Your task to perform on an android device: turn pop-ups on in chrome Image 0: 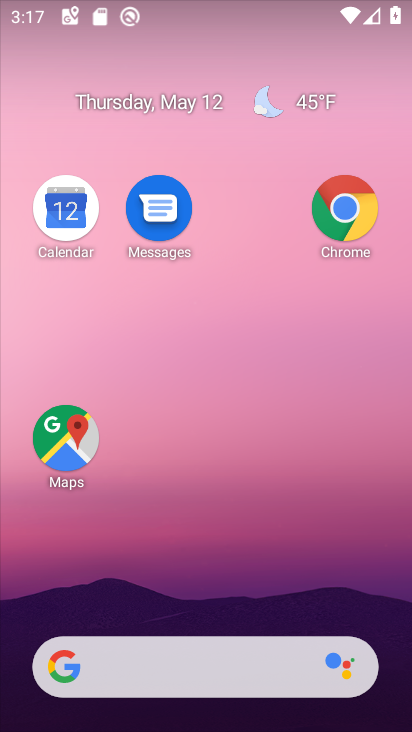
Step 0: drag from (130, 568) to (219, 236)
Your task to perform on an android device: turn pop-ups on in chrome Image 1: 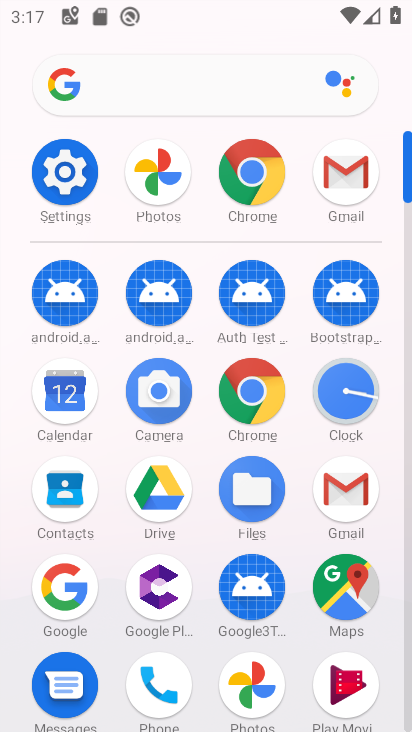
Step 1: click (261, 153)
Your task to perform on an android device: turn pop-ups on in chrome Image 2: 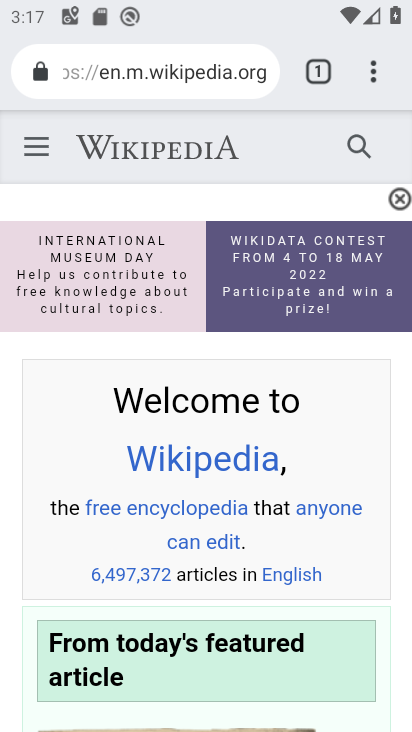
Step 2: click (380, 86)
Your task to perform on an android device: turn pop-ups on in chrome Image 3: 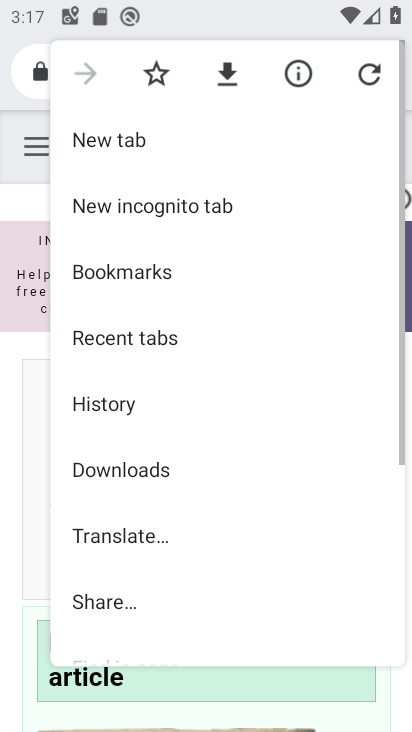
Step 3: drag from (139, 605) to (228, 236)
Your task to perform on an android device: turn pop-ups on in chrome Image 4: 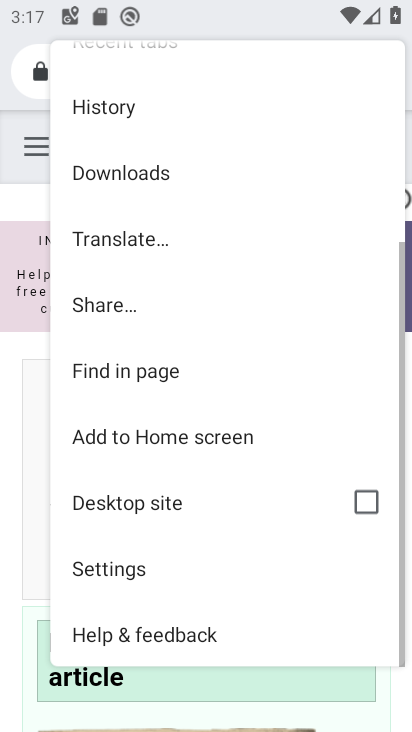
Step 4: click (154, 559)
Your task to perform on an android device: turn pop-ups on in chrome Image 5: 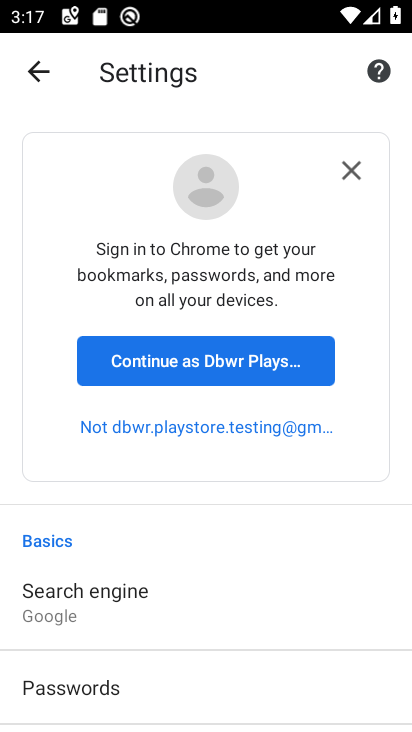
Step 5: drag from (175, 626) to (216, 380)
Your task to perform on an android device: turn pop-ups on in chrome Image 6: 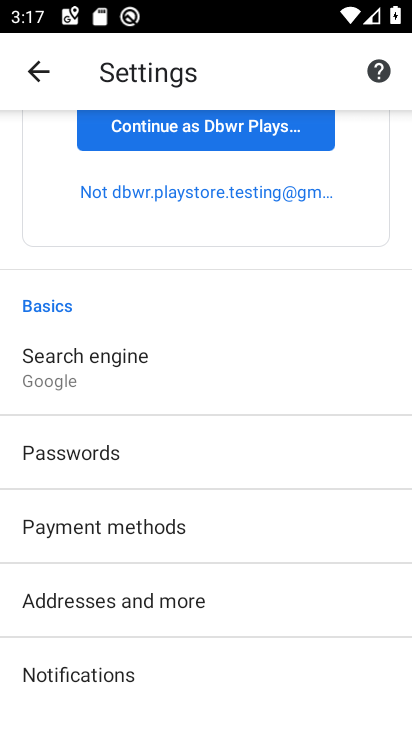
Step 6: drag from (143, 617) to (158, 440)
Your task to perform on an android device: turn pop-ups on in chrome Image 7: 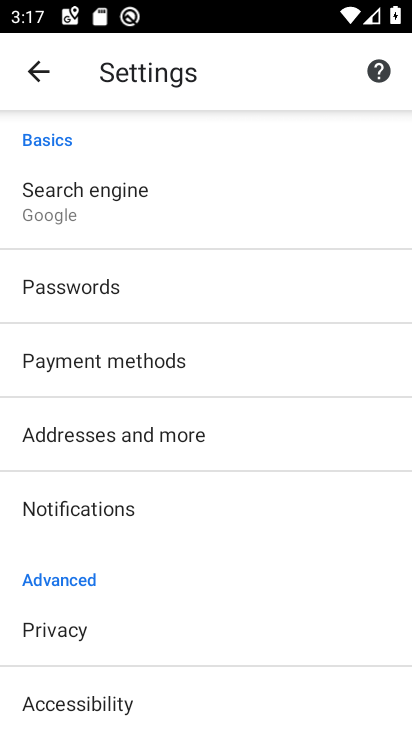
Step 7: drag from (162, 592) to (213, 310)
Your task to perform on an android device: turn pop-ups on in chrome Image 8: 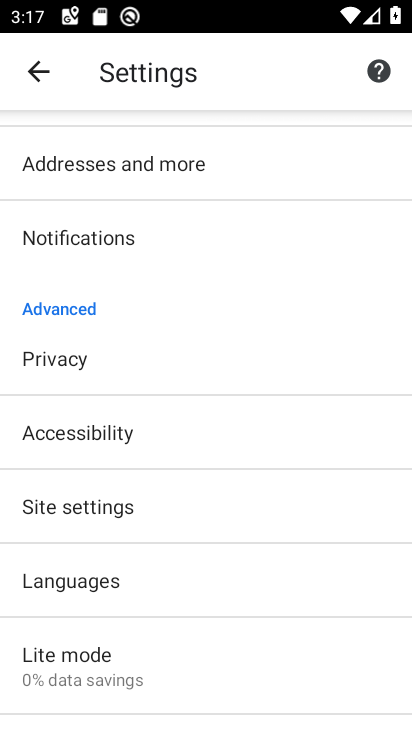
Step 8: drag from (181, 560) to (238, 377)
Your task to perform on an android device: turn pop-ups on in chrome Image 9: 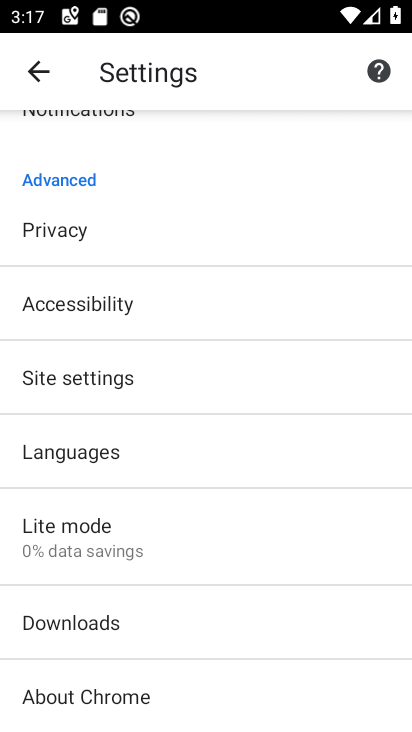
Step 9: click (143, 380)
Your task to perform on an android device: turn pop-ups on in chrome Image 10: 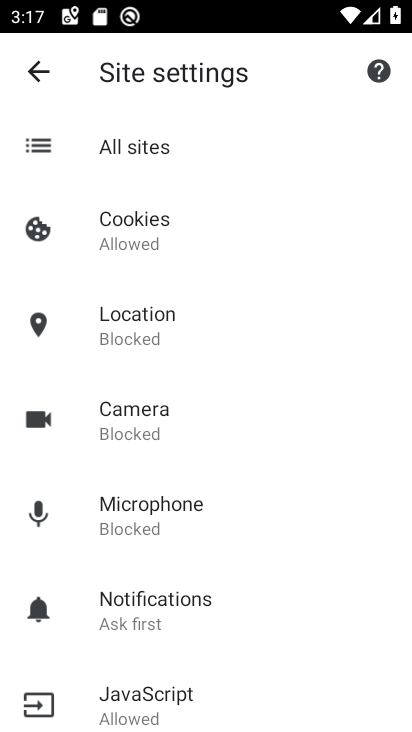
Step 10: drag from (222, 649) to (259, 363)
Your task to perform on an android device: turn pop-ups on in chrome Image 11: 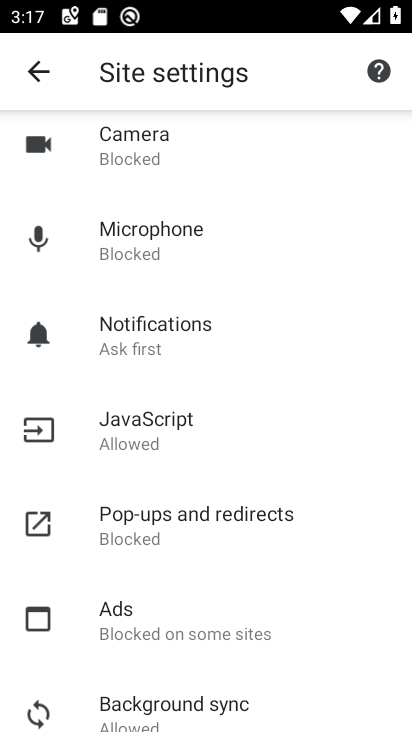
Step 11: click (149, 530)
Your task to perform on an android device: turn pop-ups on in chrome Image 12: 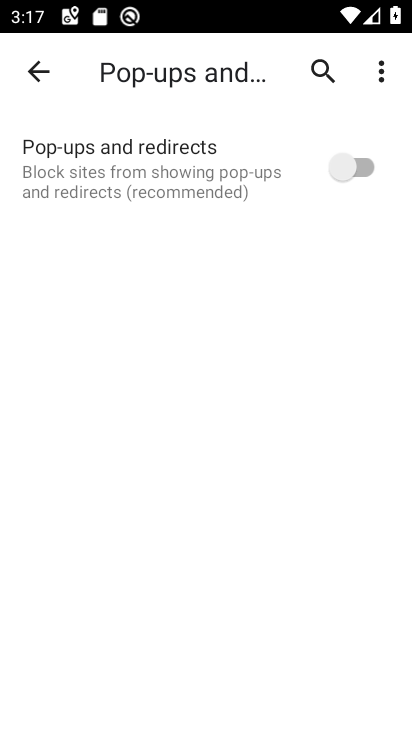
Step 12: click (347, 156)
Your task to perform on an android device: turn pop-ups on in chrome Image 13: 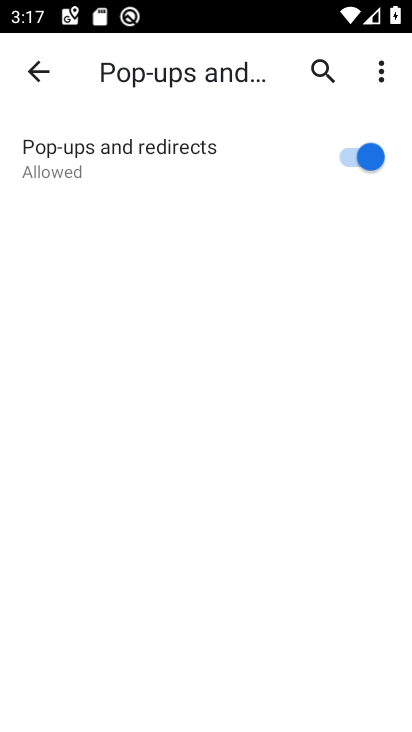
Step 13: task complete